Your task to perform on an android device: Clear the cart on amazon.com. Image 0: 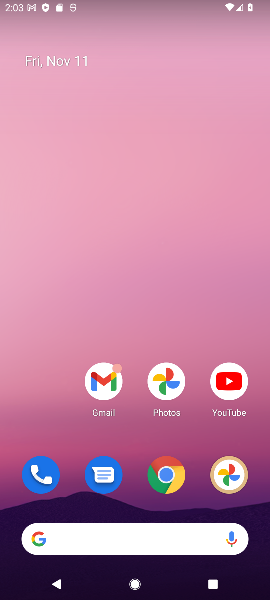
Step 0: drag from (81, 529) to (163, 68)
Your task to perform on an android device: Clear the cart on amazon.com. Image 1: 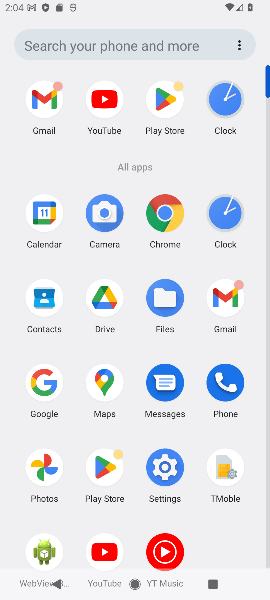
Step 1: click (163, 212)
Your task to perform on an android device: Clear the cart on amazon.com. Image 2: 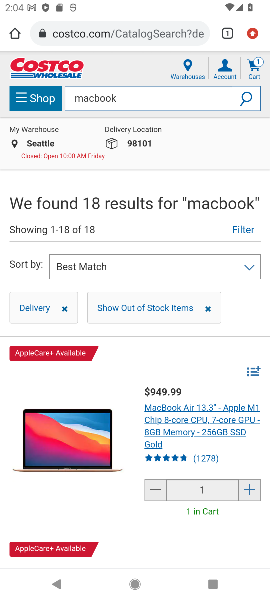
Step 2: click (128, 39)
Your task to perform on an android device: Clear the cart on amazon.com. Image 3: 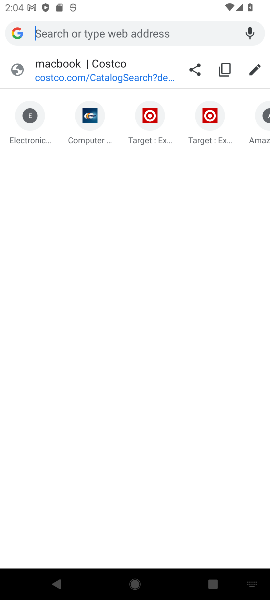
Step 3: type "amazon.com."
Your task to perform on an android device: Clear the cart on amazon.com. Image 4: 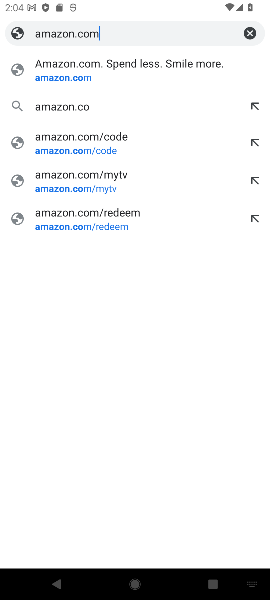
Step 4: press enter
Your task to perform on an android device: Clear the cart on amazon.com. Image 5: 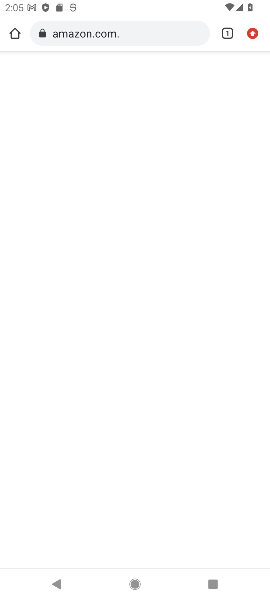
Step 5: click (134, 36)
Your task to perform on an android device: Clear the cart on amazon.com. Image 6: 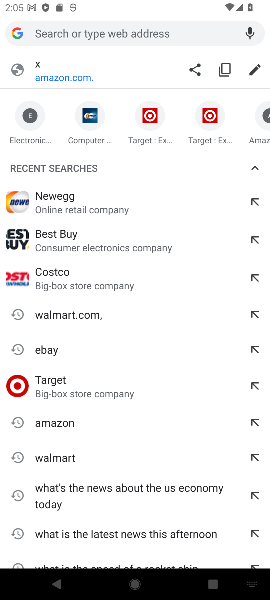
Step 6: type "amazon"
Your task to perform on an android device: Clear the cart on amazon.com. Image 7: 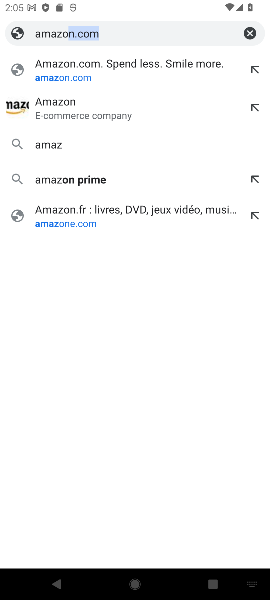
Step 7: press enter
Your task to perform on an android device: Clear the cart on amazon.com. Image 8: 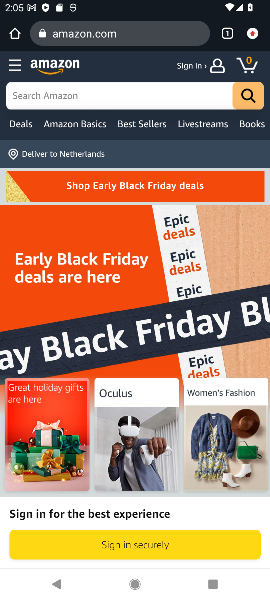
Step 8: click (89, 93)
Your task to perform on an android device: Clear the cart on amazon.com. Image 9: 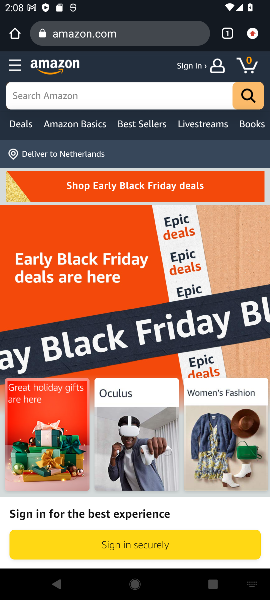
Step 9: task complete